Your task to perform on an android device: Open Maps and search for coffee Image 0: 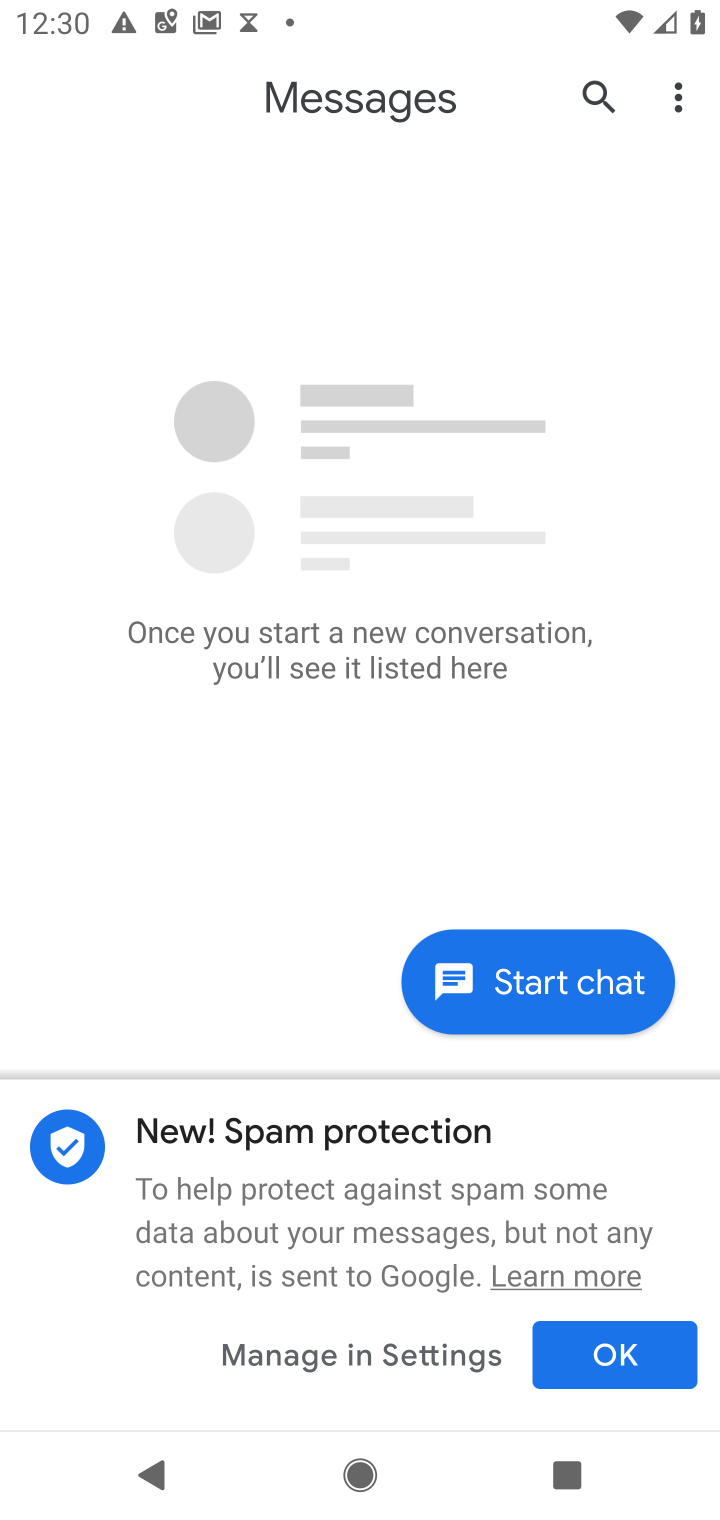
Step 0: press home button
Your task to perform on an android device: Open Maps and search for coffee Image 1: 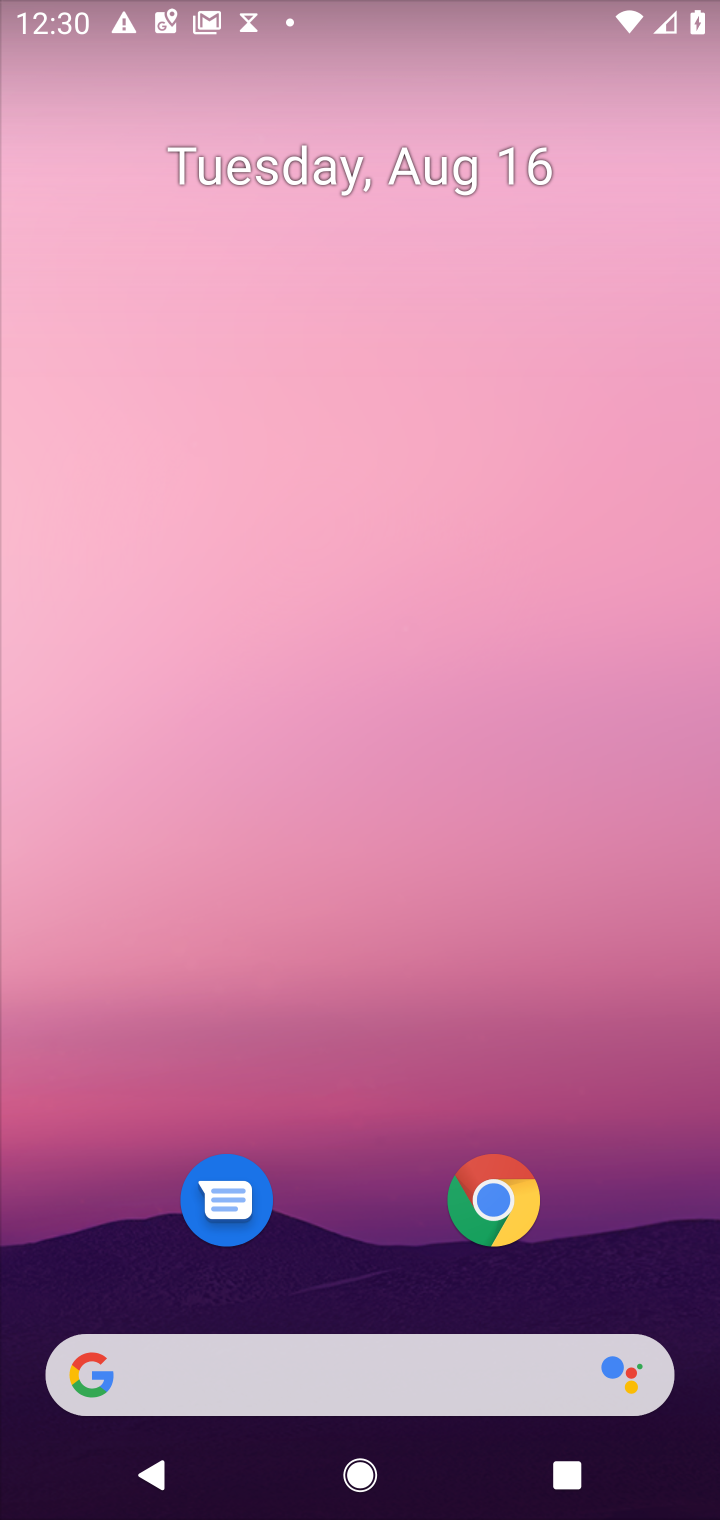
Step 1: drag from (370, 1274) to (416, 184)
Your task to perform on an android device: Open Maps and search for coffee Image 2: 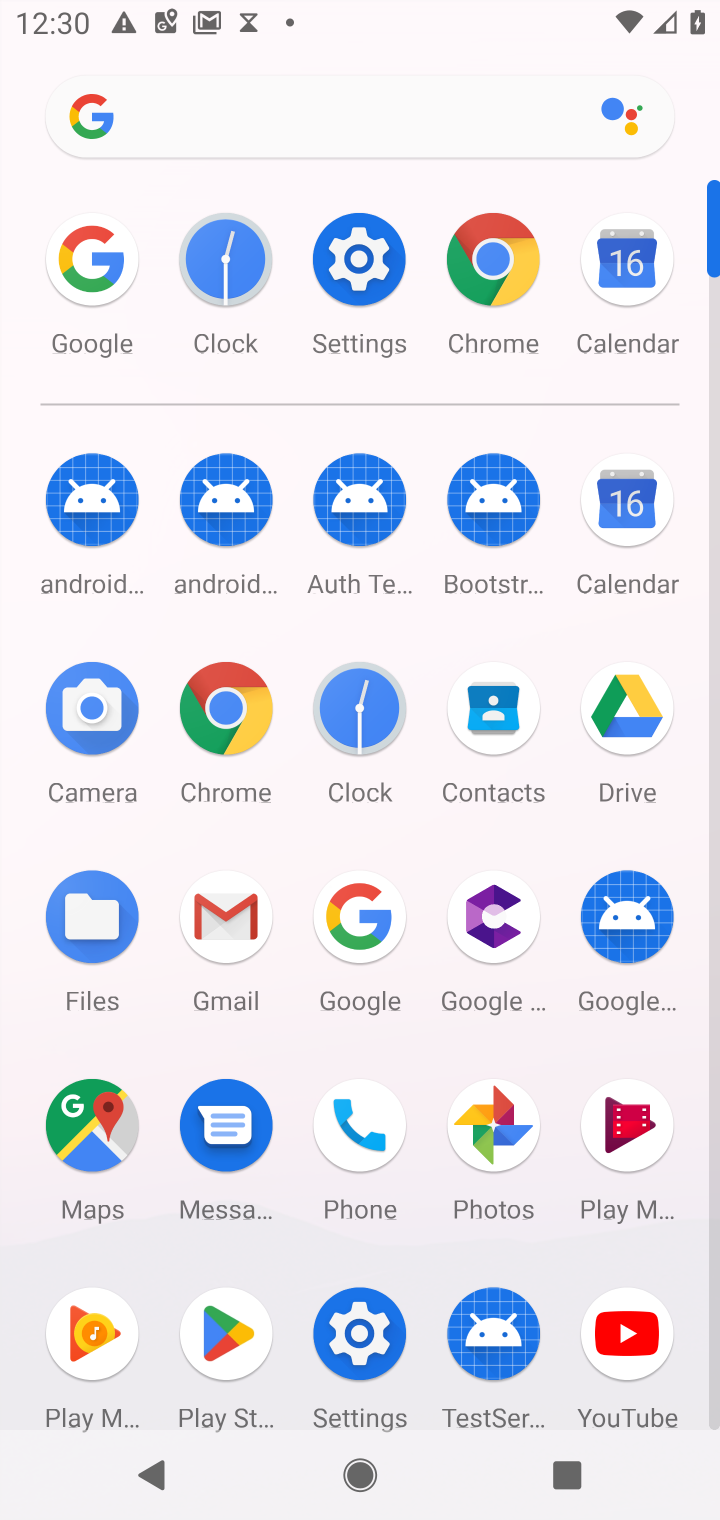
Step 2: click (108, 1106)
Your task to perform on an android device: Open Maps and search for coffee Image 3: 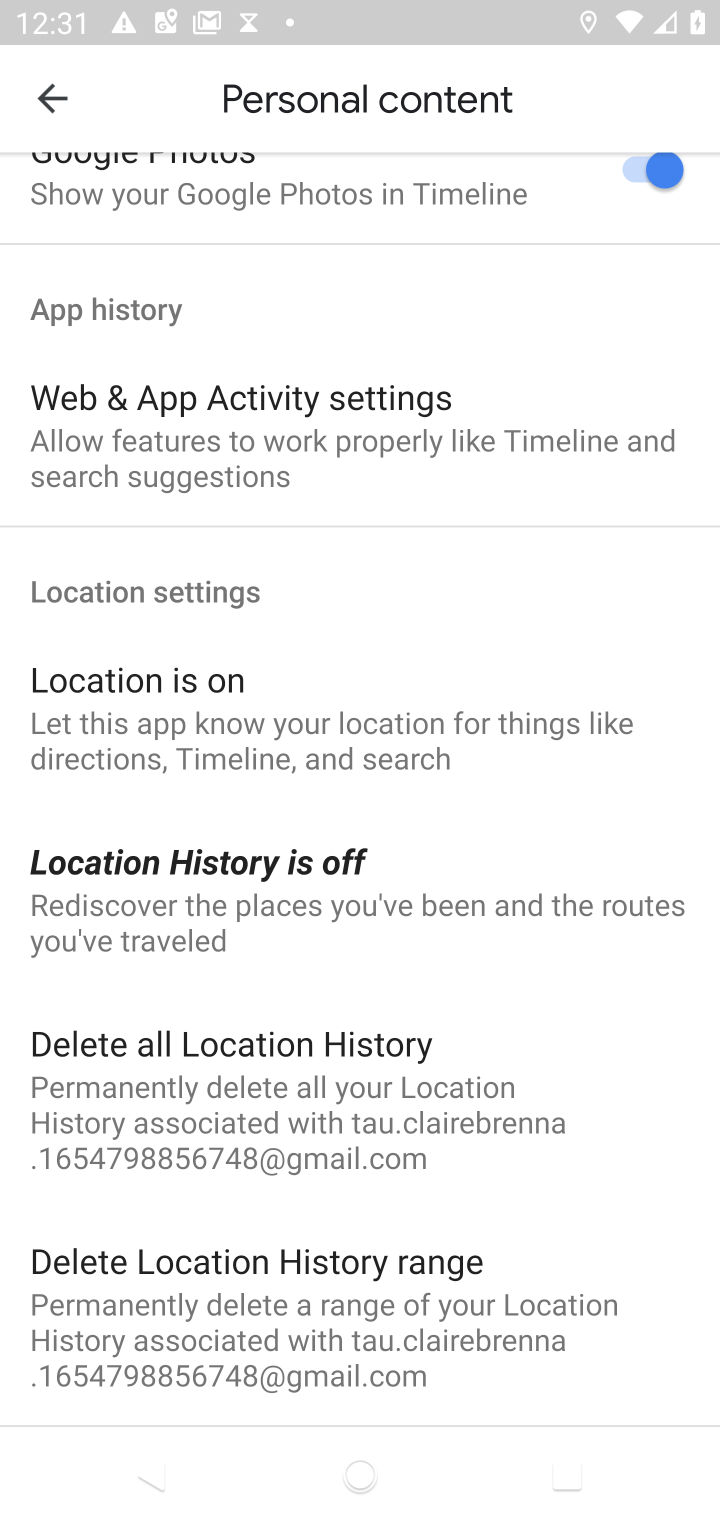
Step 3: click (60, 102)
Your task to perform on an android device: Open Maps and search for coffee Image 4: 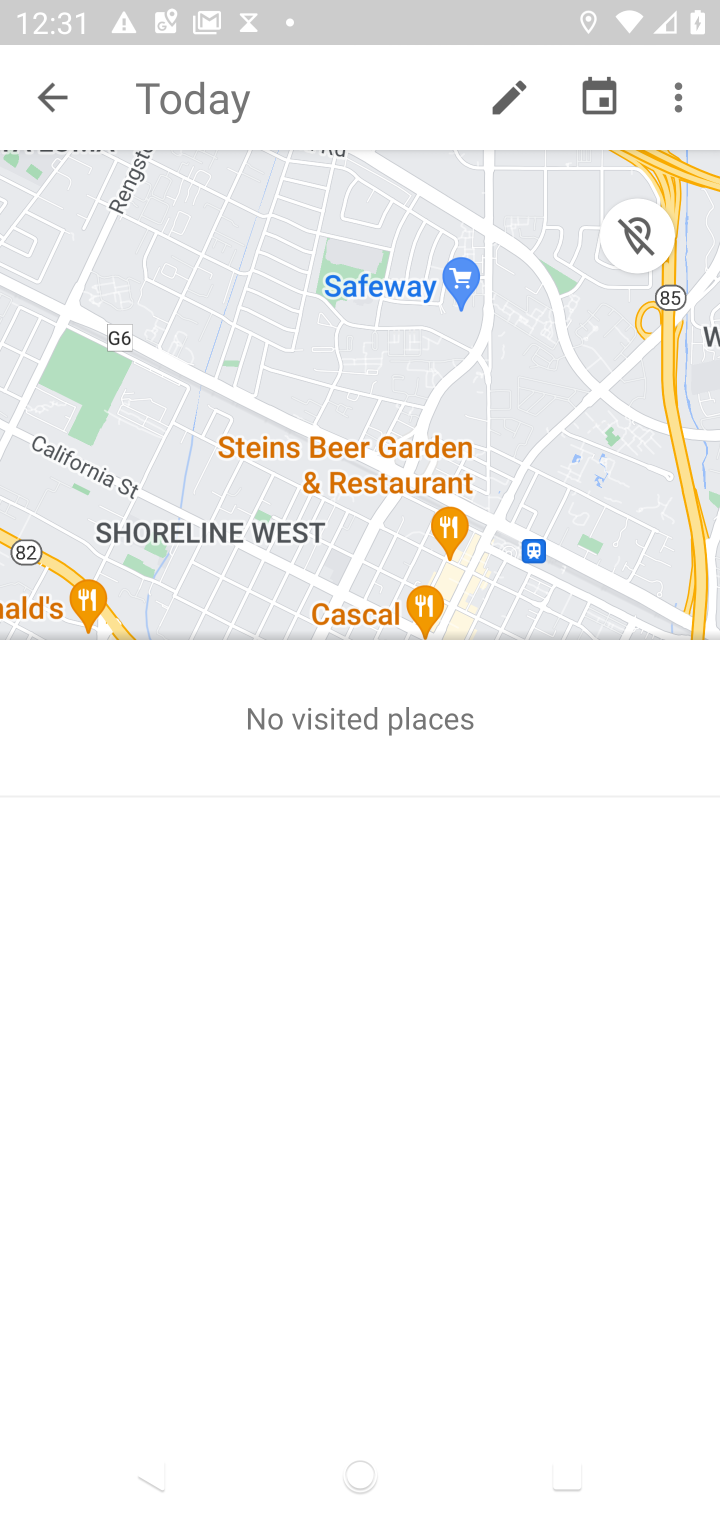
Step 4: click (60, 102)
Your task to perform on an android device: Open Maps and search for coffee Image 5: 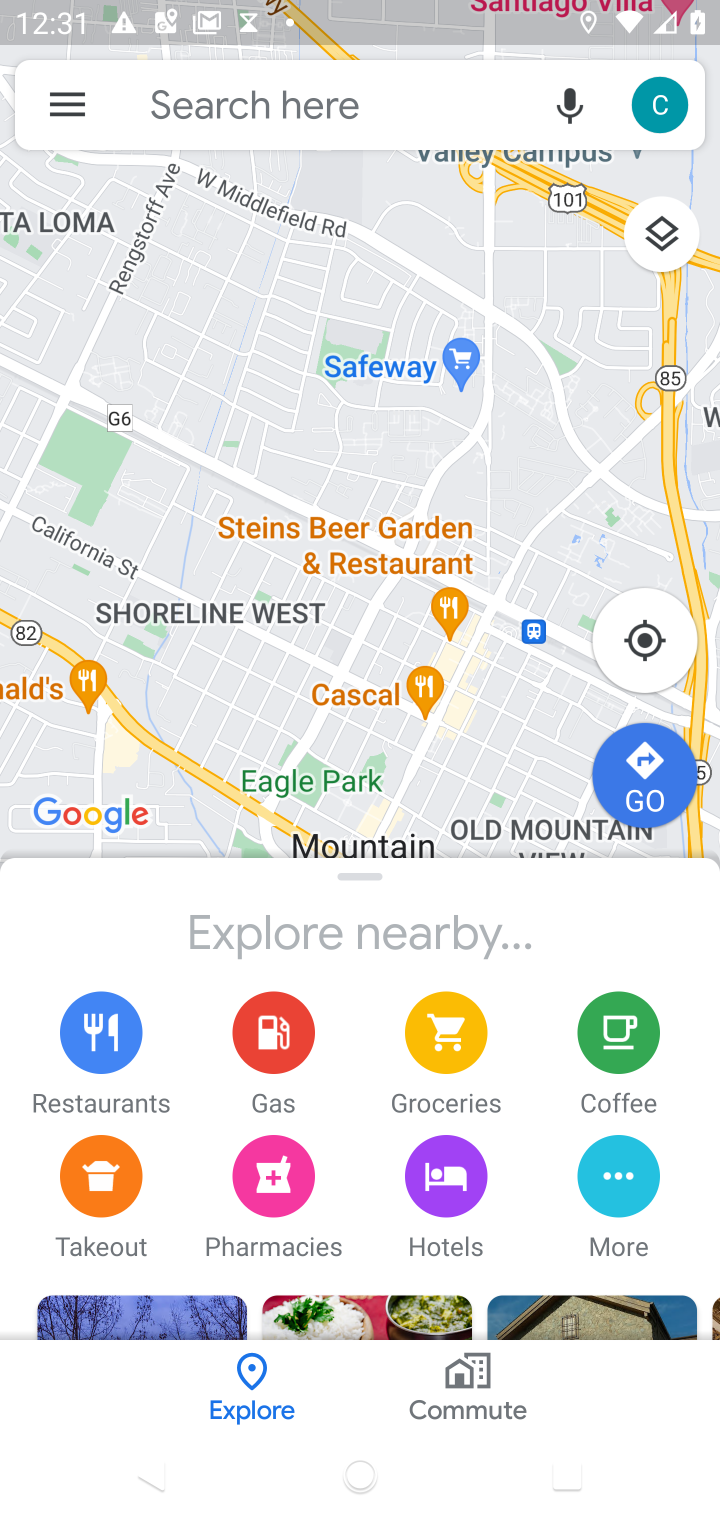
Step 5: click (254, 95)
Your task to perform on an android device: Open Maps and search for coffee Image 6: 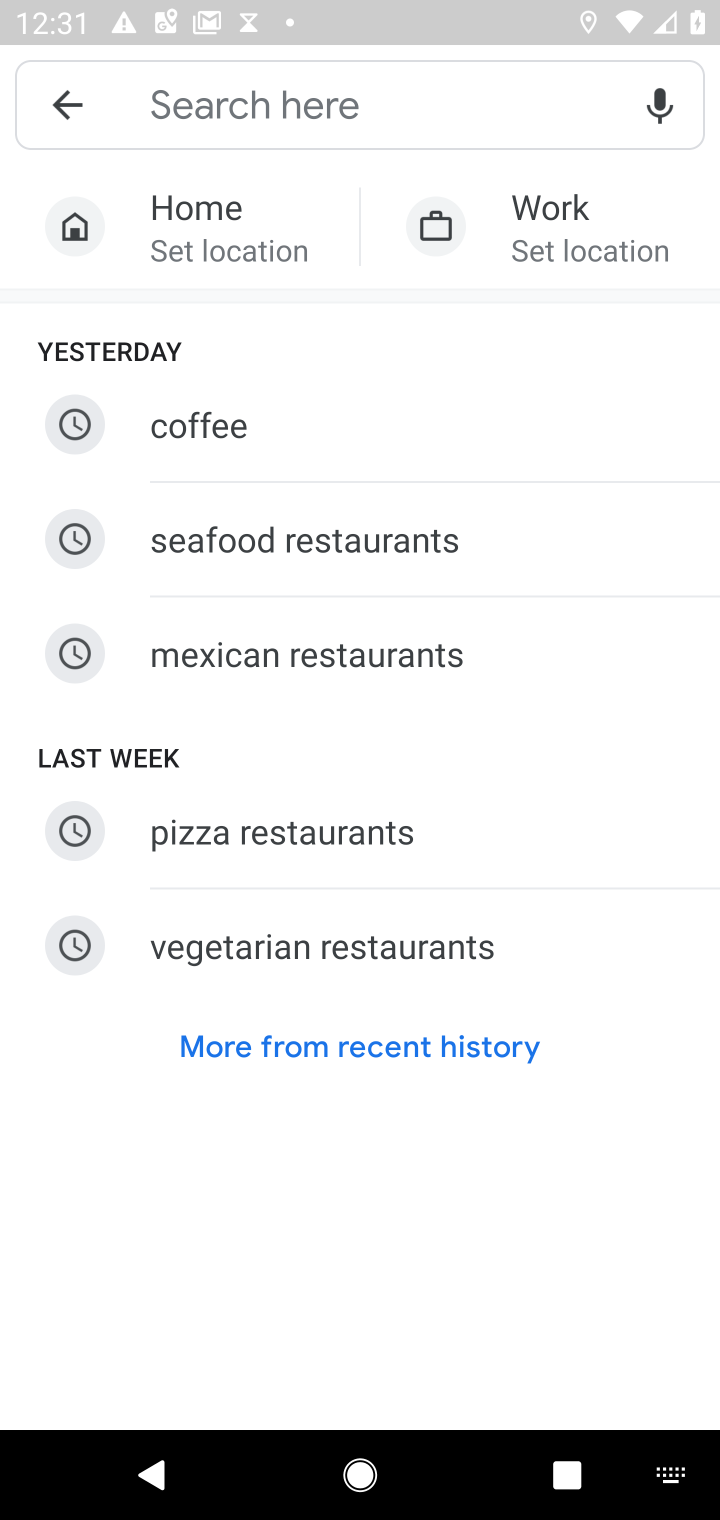
Step 6: click (253, 389)
Your task to perform on an android device: Open Maps and search for coffee Image 7: 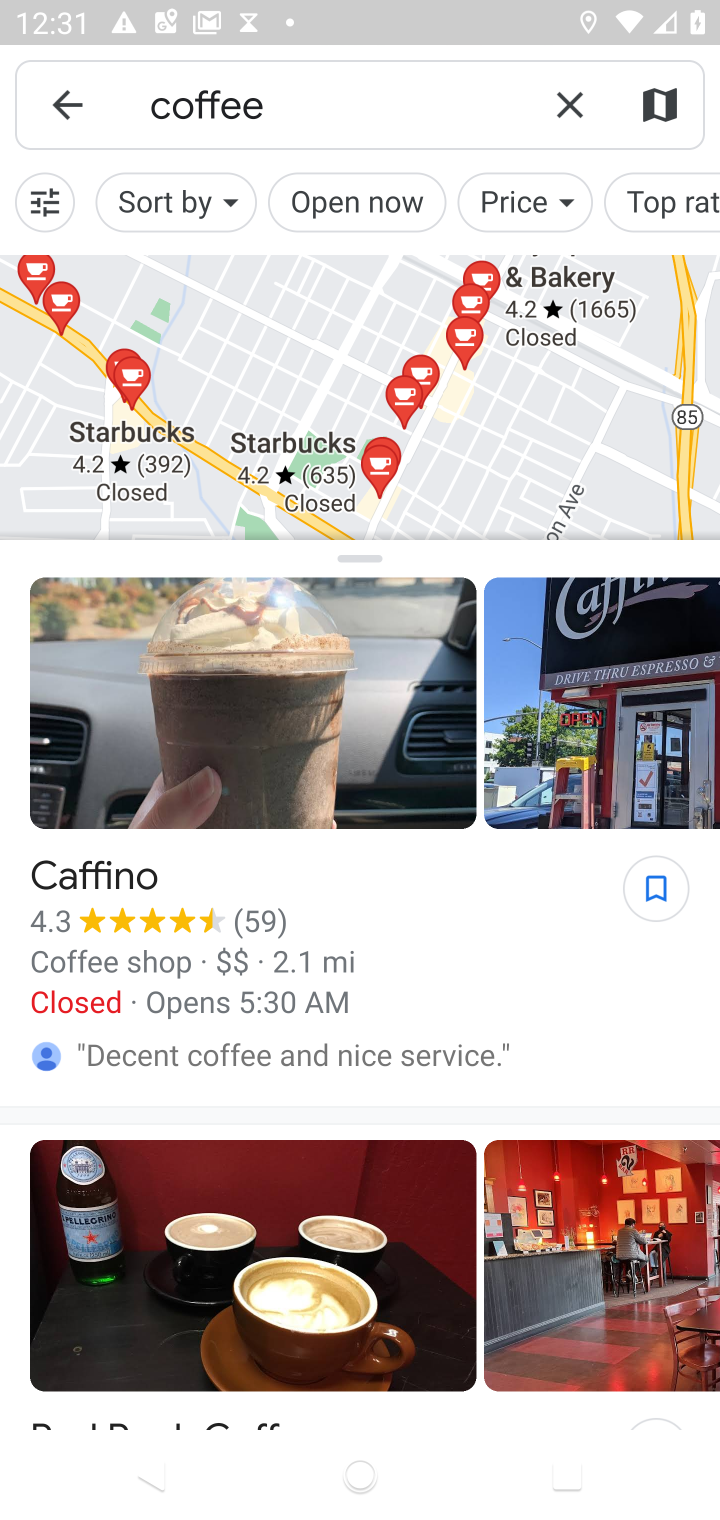
Step 7: task complete